Your task to perform on an android device: toggle pop-ups in chrome Image 0: 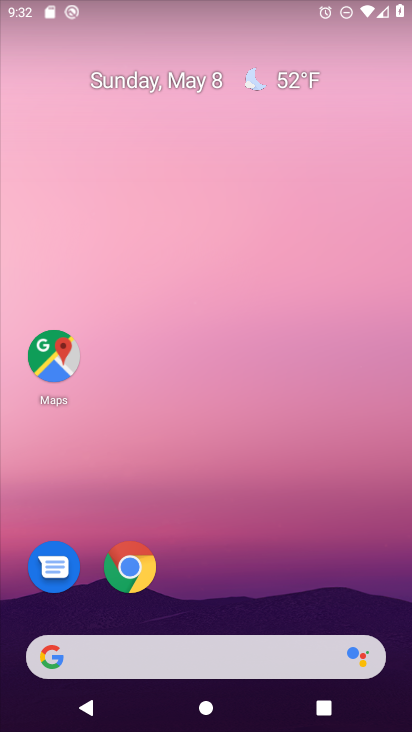
Step 0: click (142, 594)
Your task to perform on an android device: toggle pop-ups in chrome Image 1: 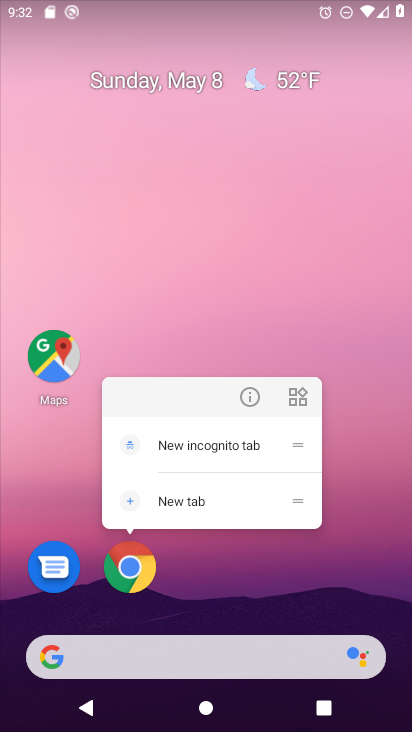
Step 1: click (229, 603)
Your task to perform on an android device: toggle pop-ups in chrome Image 2: 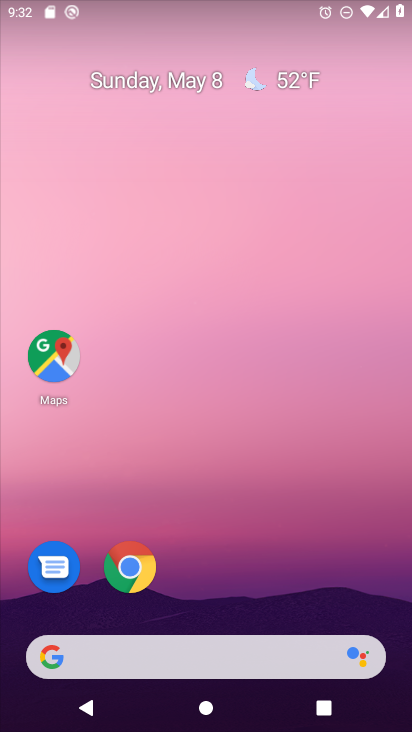
Step 2: drag from (229, 602) to (191, 0)
Your task to perform on an android device: toggle pop-ups in chrome Image 3: 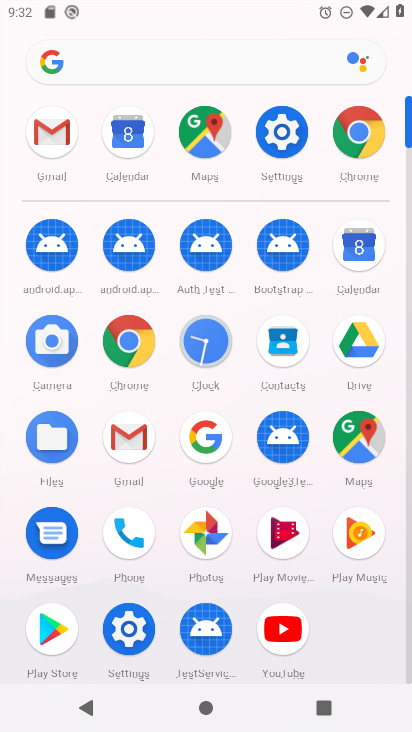
Step 3: click (375, 157)
Your task to perform on an android device: toggle pop-ups in chrome Image 4: 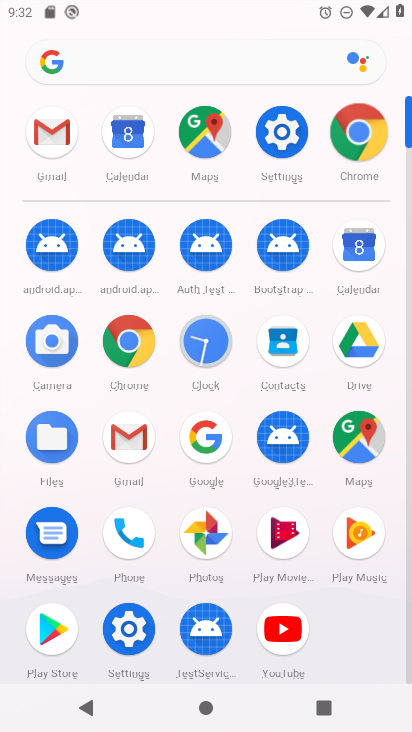
Step 4: click (362, 132)
Your task to perform on an android device: toggle pop-ups in chrome Image 5: 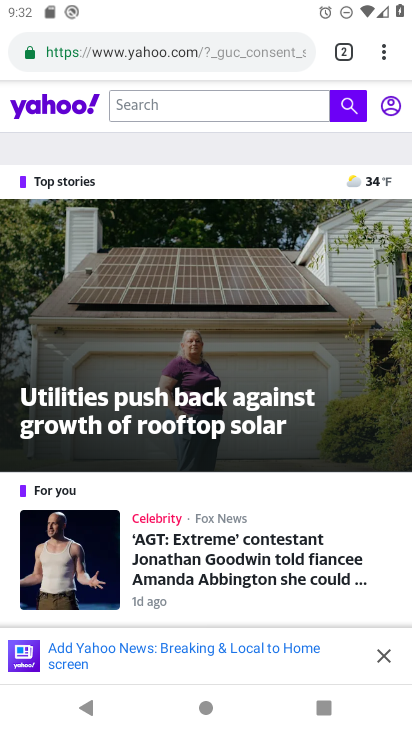
Step 5: drag from (388, 65) to (269, 613)
Your task to perform on an android device: toggle pop-ups in chrome Image 6: 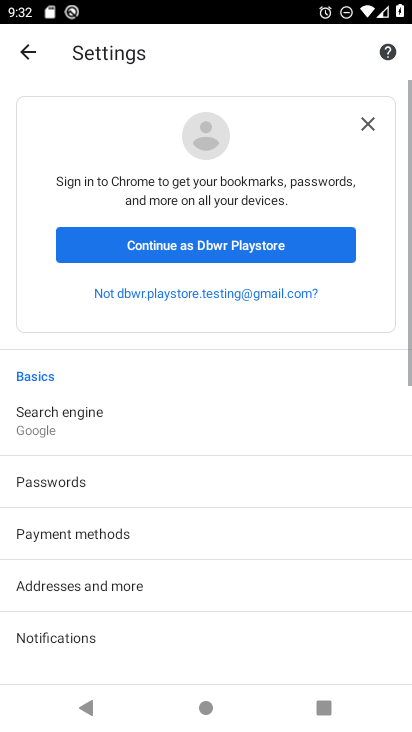
Step 6: drag from (244, 619) to (229, 211)
Your task to perform on an android device: toggle pop-ups in chrome Image 7: 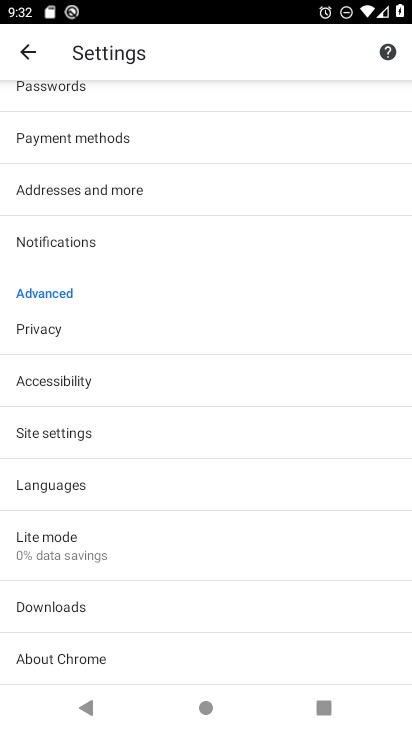
Step 7: click (100, 442)
Your task to perform on an android device: toggle pop-ups in chrome Image 8: 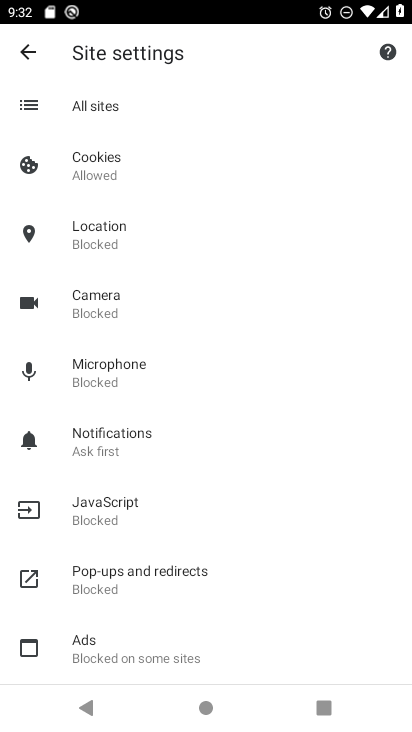
Step 8: drag from (200, 628) to (286, 214)
Your task to perform on an android device: toggle pop-ups in chrome Image 9: 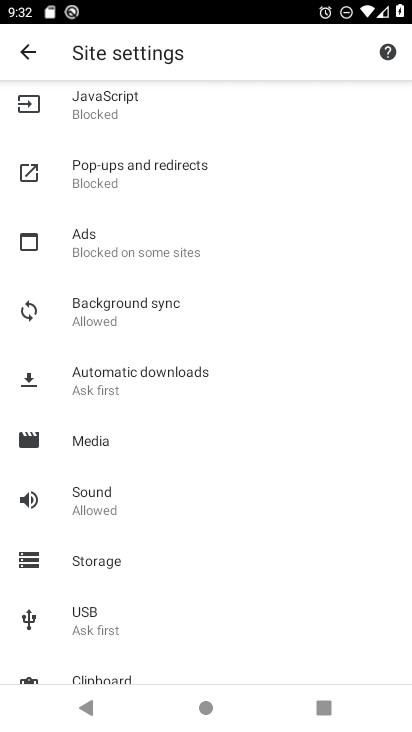
Step 9: click (101, 166)
Your task to perform on an android device: toggle pop-ups in chrome Image 10: 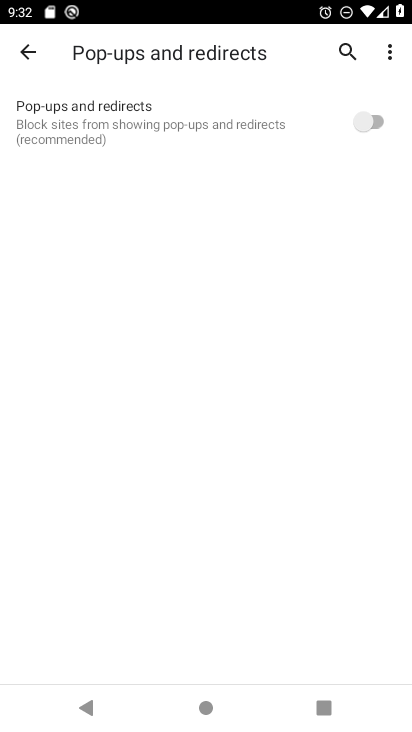
Step 10: click (386, 124)
Your task to perform on an android device: toggle pop-ups in chrome Image 11: 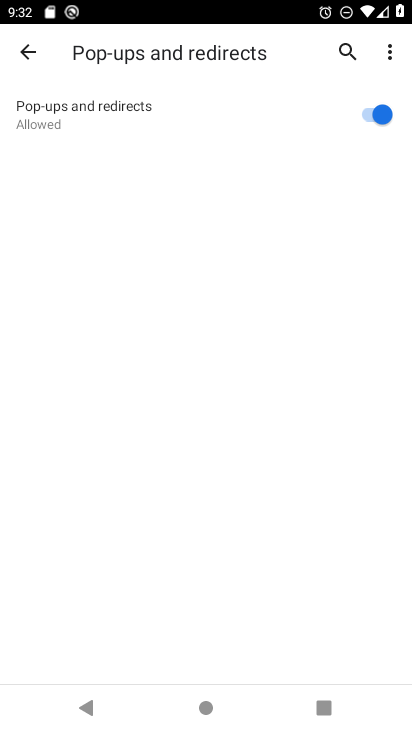
Step 11: task complete